Your task to perform on an android device: toggle pop-ups in chrome Image 0: 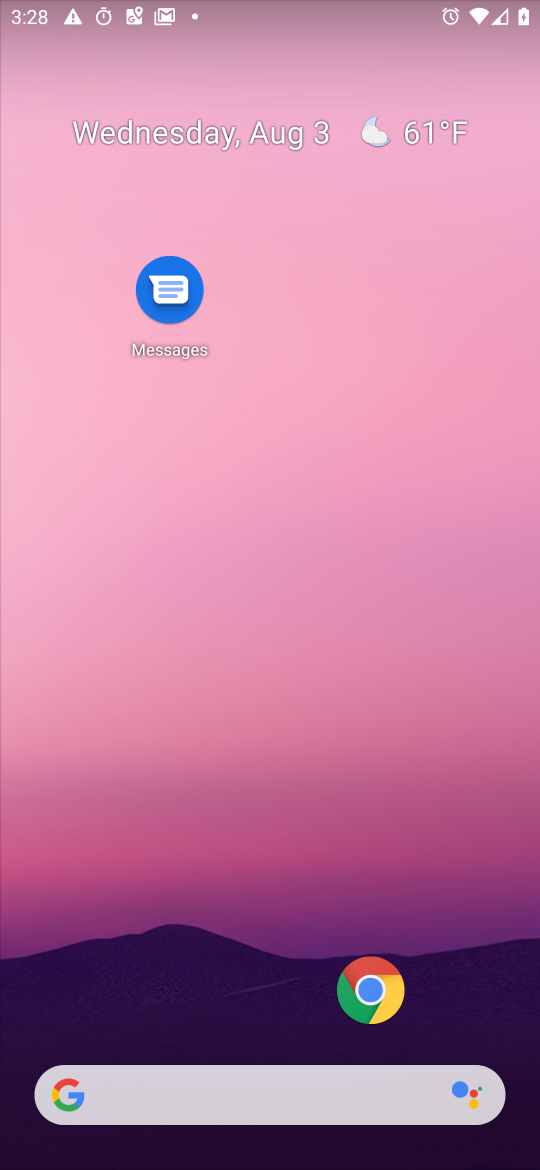
Step 0: drag from (274, 1045) to (274, 343)
Your task to perform on an android device: toggle pop-ups in chrome Image 1: 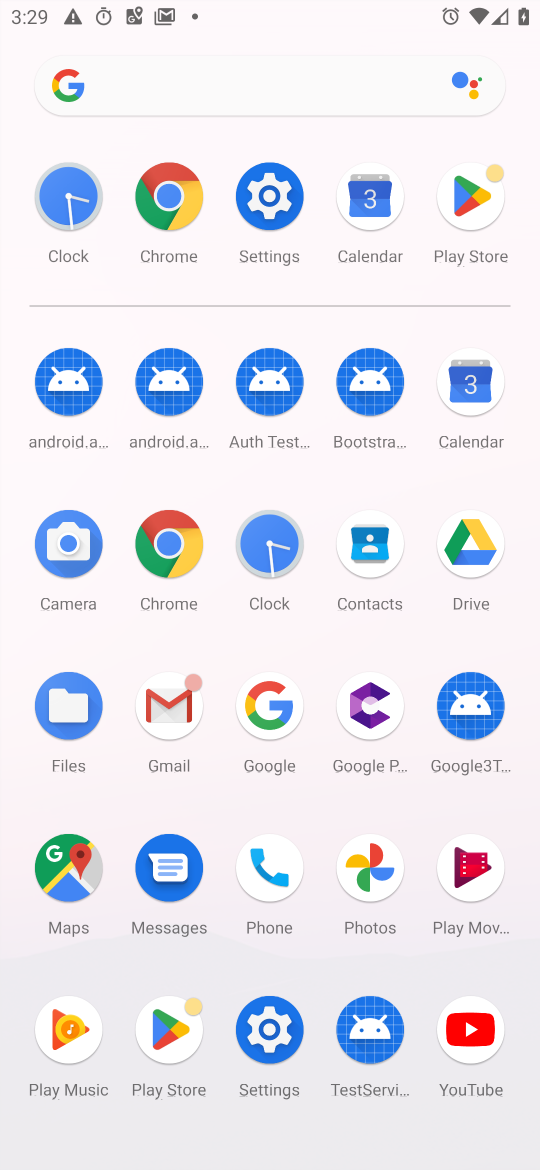
Step 1: click (175, 554)
Your task to perform on an android device: toggle pop-ups in chrome Image 2: 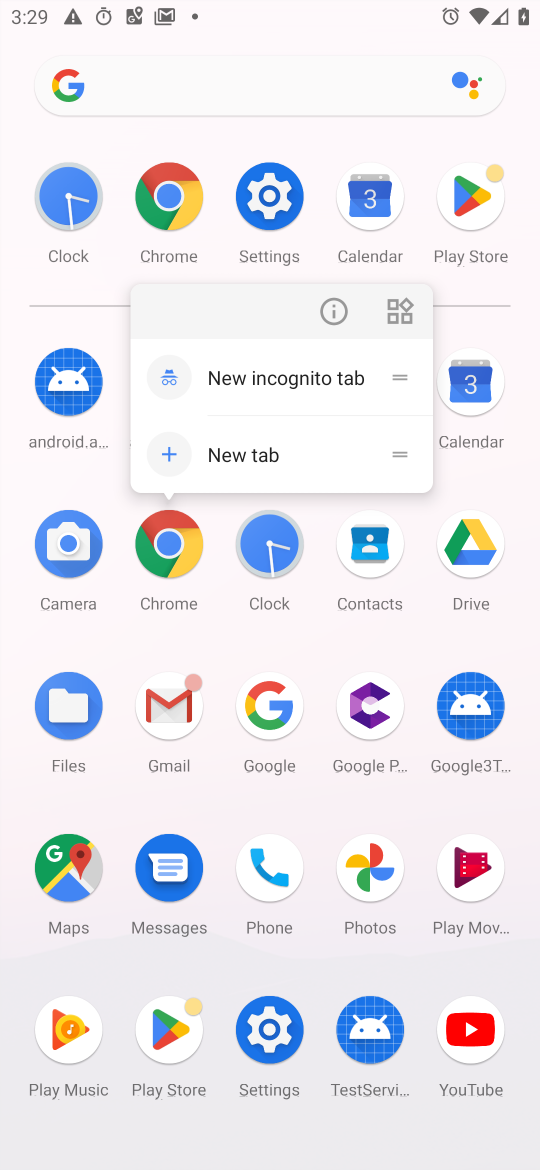
Step 2: click (170, 542)
Your task to perform on an android device: toggle pop-ups in chrome Image 3: 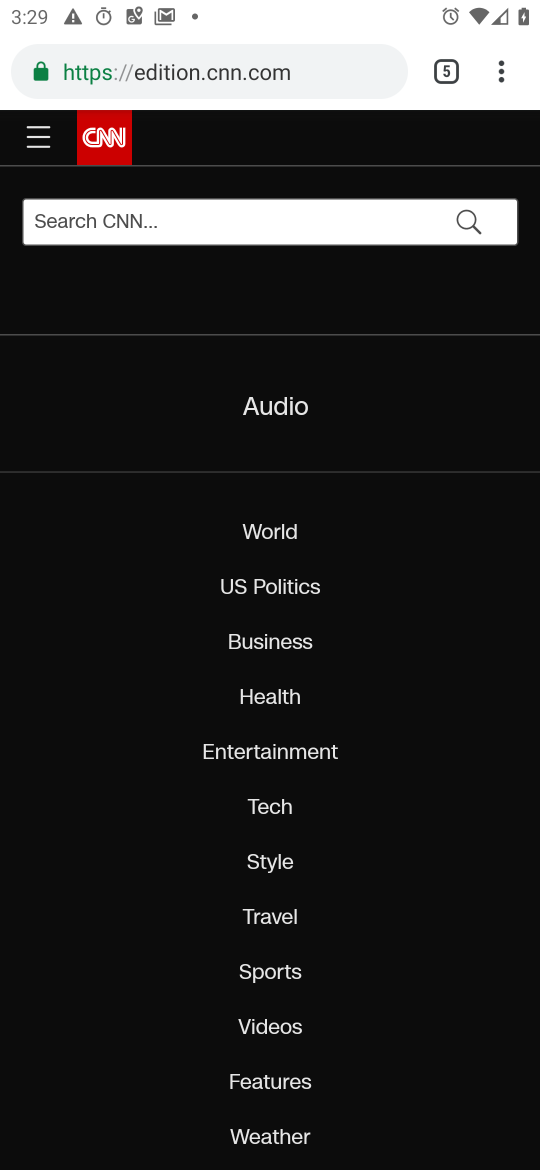
Step 3: click (512, 73)
Your task to perform on an android device: toggle pop-ups in chrome Image 4: 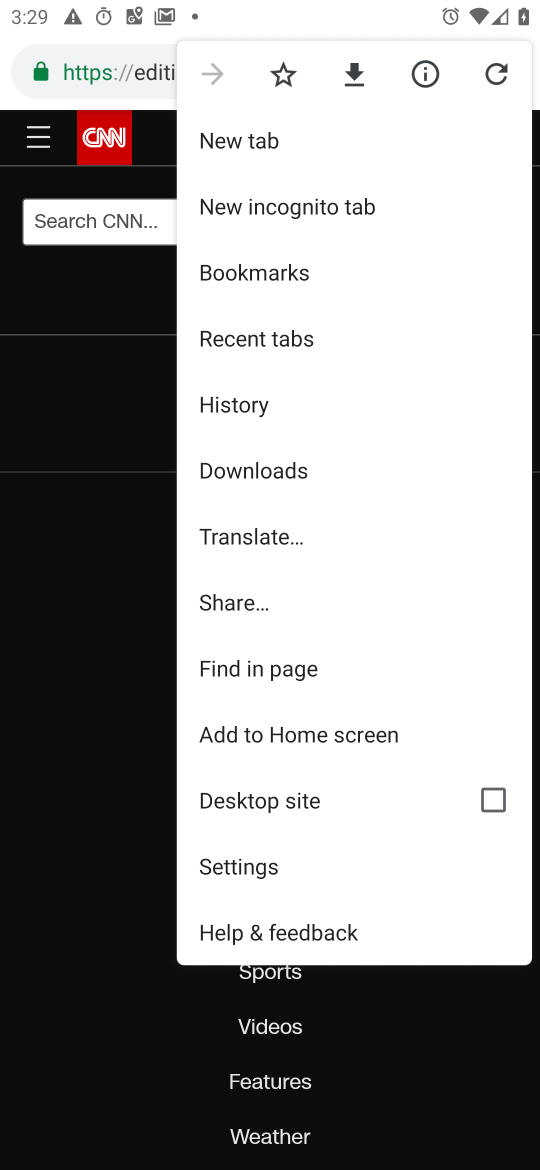
Step 4: click (235, 867)
Your task to perform on an android device: toggle pop-ups in chrome Image 5: 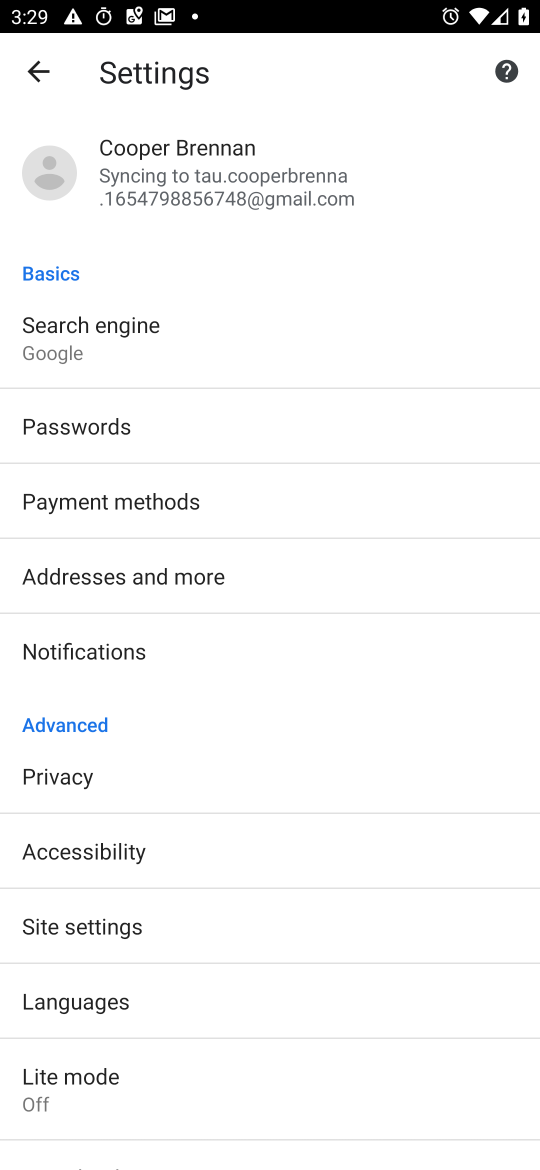
Step 5: drag from (114, 1078) to (135, 515)
Your task to perform on an android device: toggle pop-ups in chrome Image 6: 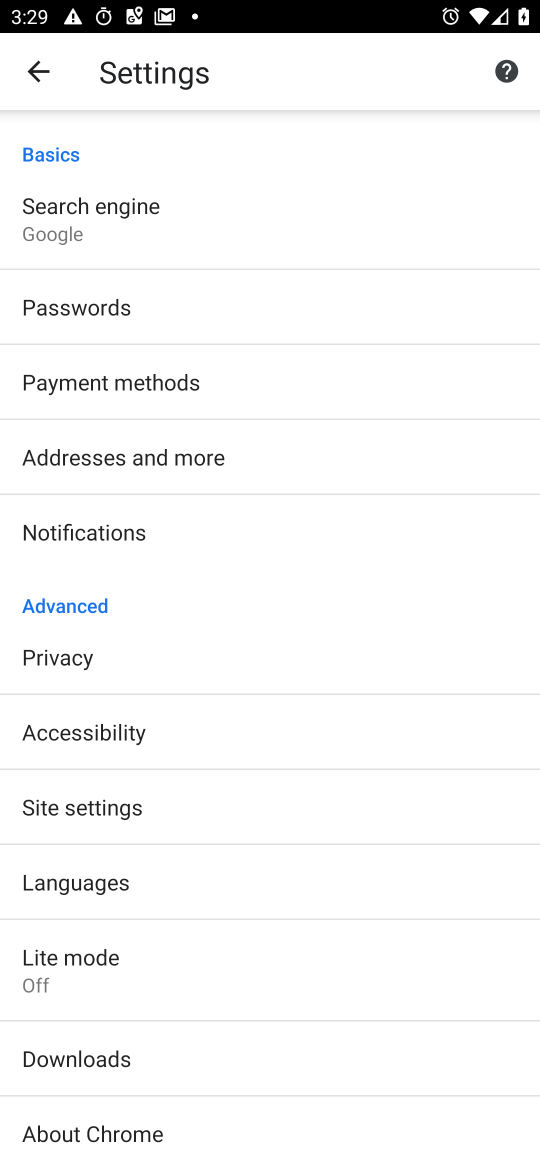
Step 6: click (52, 799)
Your task to perform on an android device: toggle pop-ups in chrome Image 7: 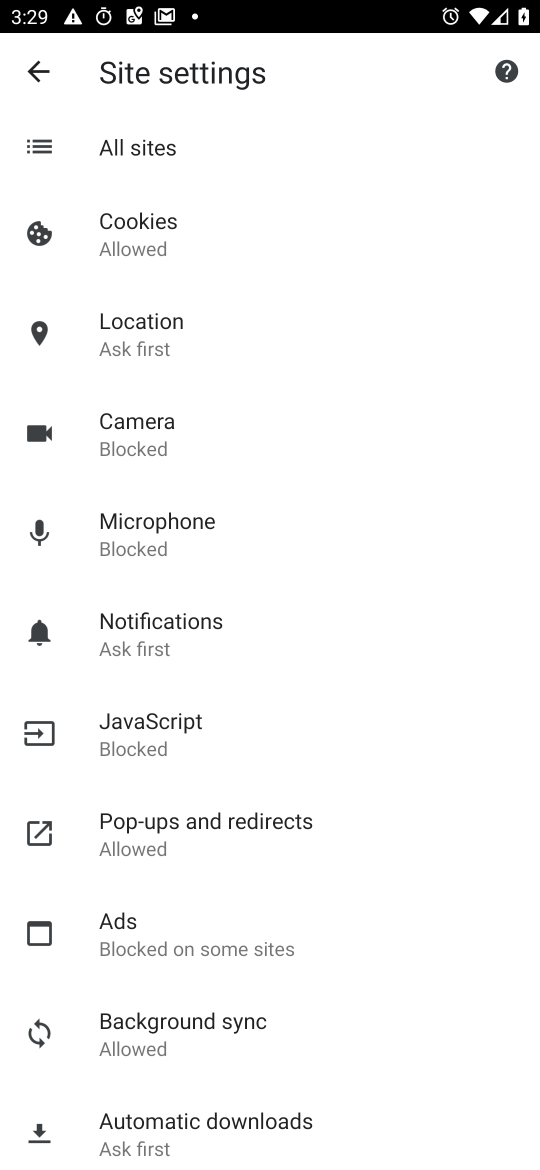
Step 7: click (185, 826)
Your task to perform on an android device: toggle pop-ups in chrome Image 8: 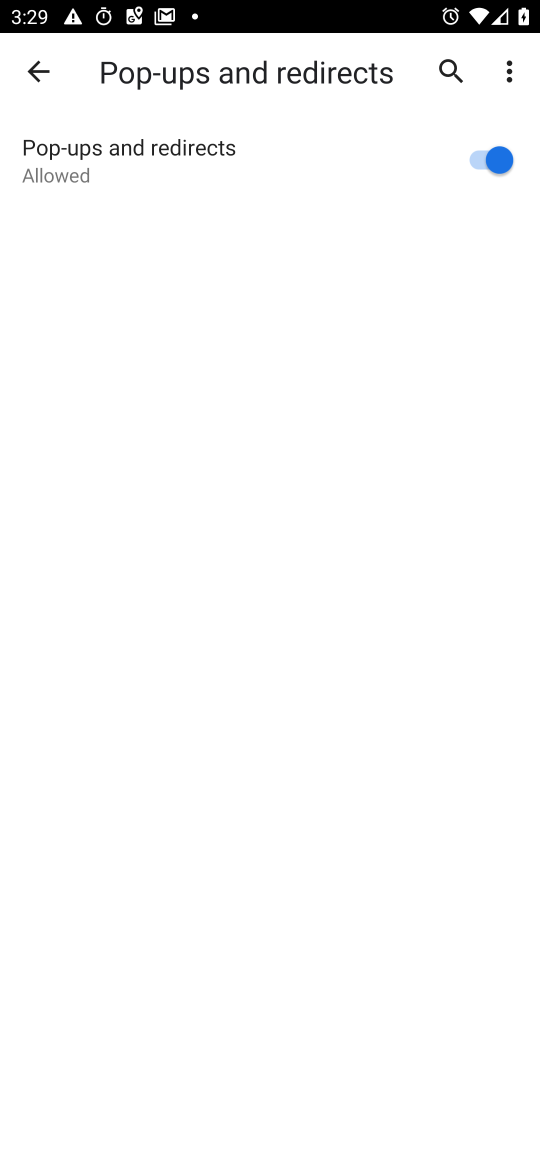
Step 8: click (484, 145)
Your task to perform on an android device: toggle pop-ups in chrome Image 9: 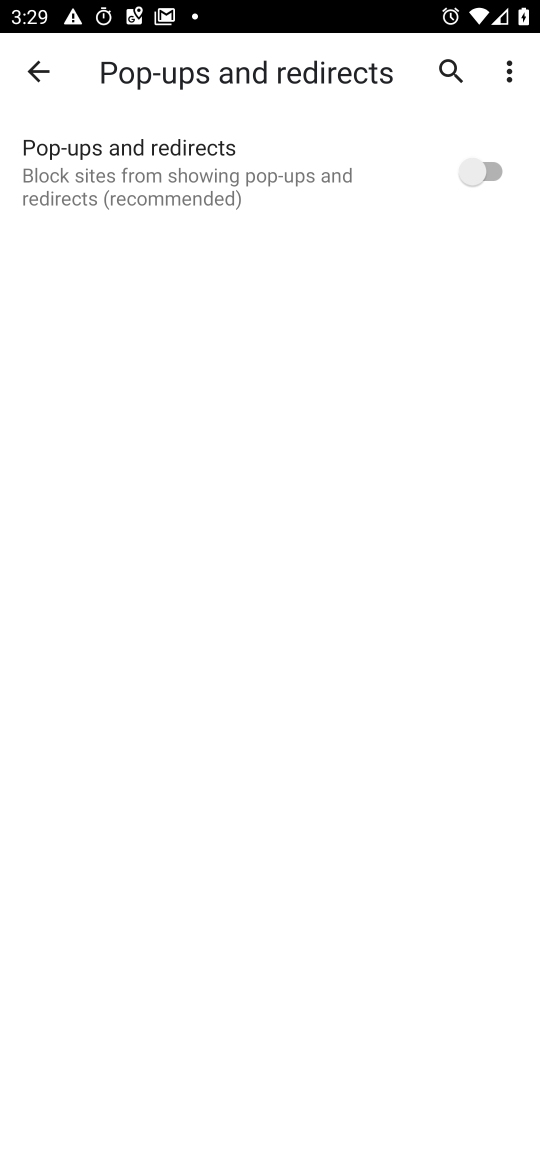
Step 9: task complete